Your task to perform on an android device: set default search engine in the chrome app Image 0: 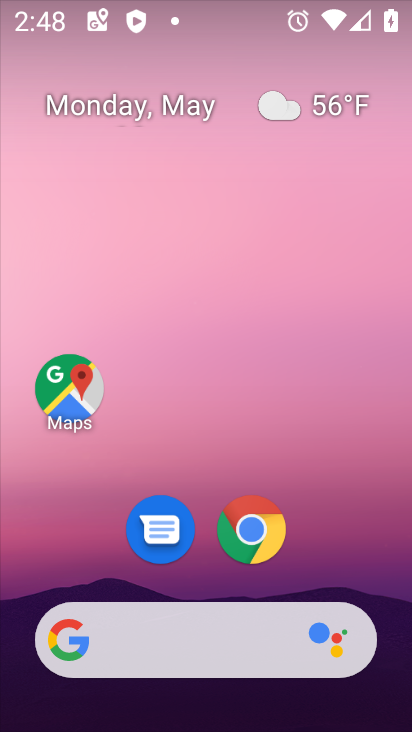
Step 0: click (245, 524)
Your task to perform on an android device: set default search engine in the chrome app Image 1: 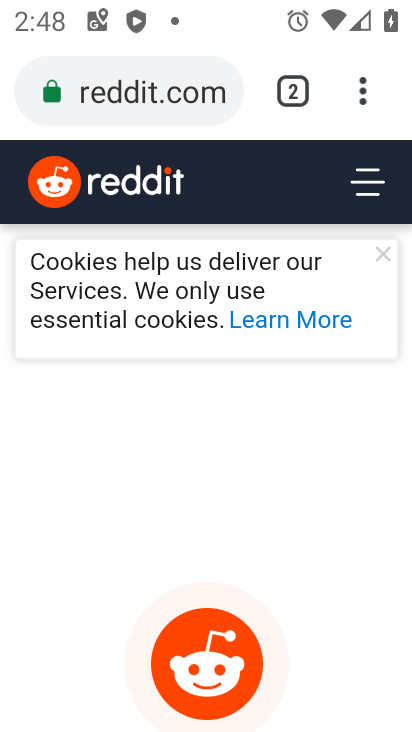
Step 1: click (356, 97)
Your task to perform on an android device: set default search engine in the chrome app Image 2: 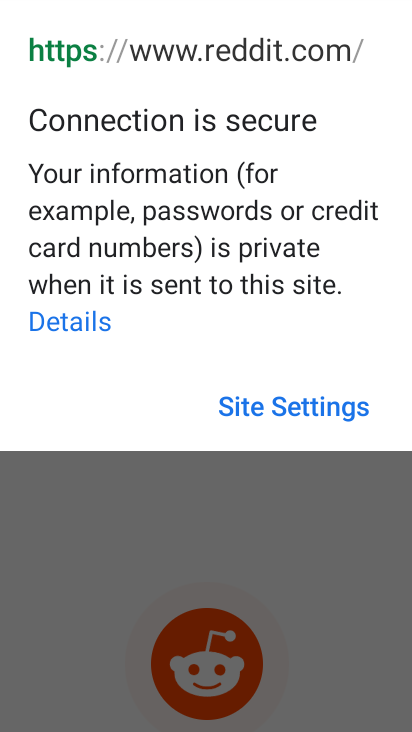
Step 2: click (335, 545)
Your task to perform on an android device: set default search engine in the chrome app Image 3: 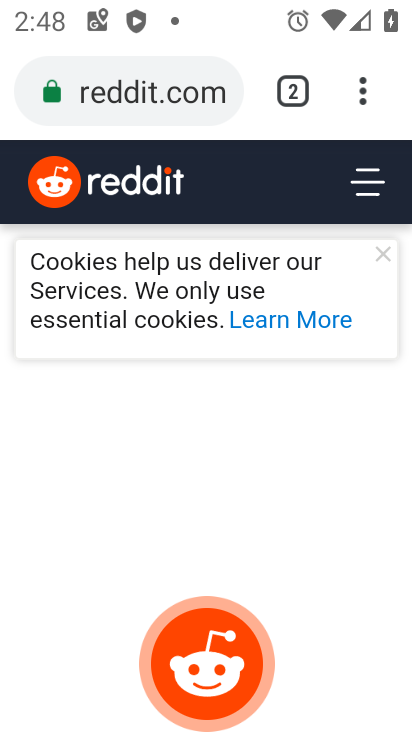
Step 3: click (363, 78)
Your task to perform on an android device: set default search engine in the chrome app Image 4: 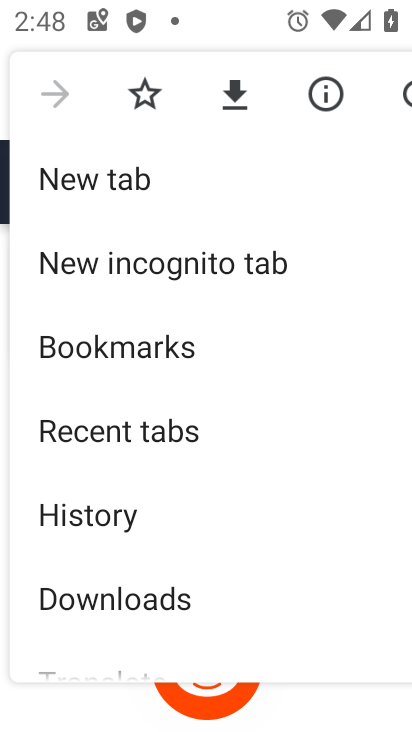
Step 4: drag from (184, 571) to (206, 341)
Your task to perform on an android device: set default search engine in the chrome app Image 5: 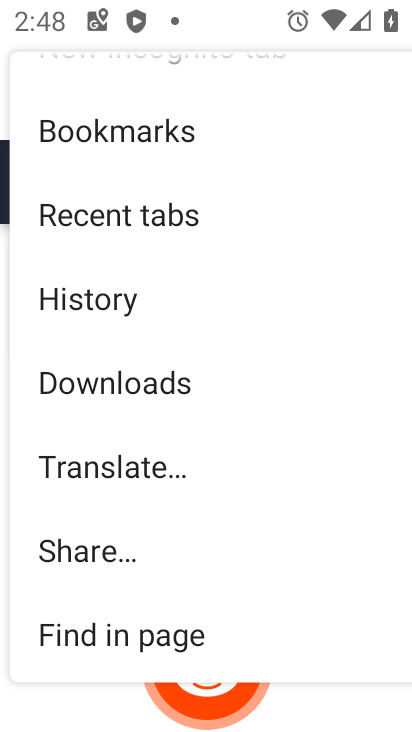
Step 5: drag from (177, 576) to (185, 314)
Your task to perform on an android device: set default search engine in the chrome app Image 6: 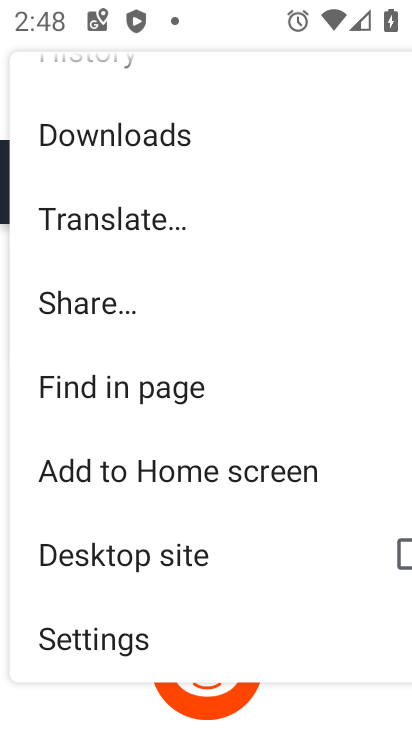
Step 6: click (155, 638)
Your task to perform on an android device: set default search engine in the chrome app Image 7: 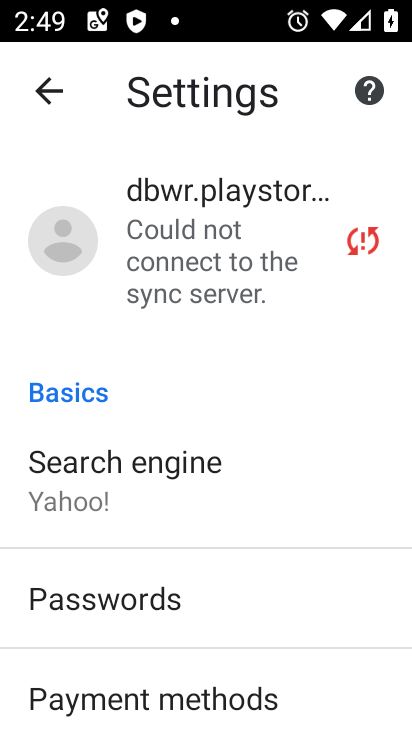
Step 7: click (85, 497)
Your task to perform on an android device: set default search engine in the chrome app Image 8: 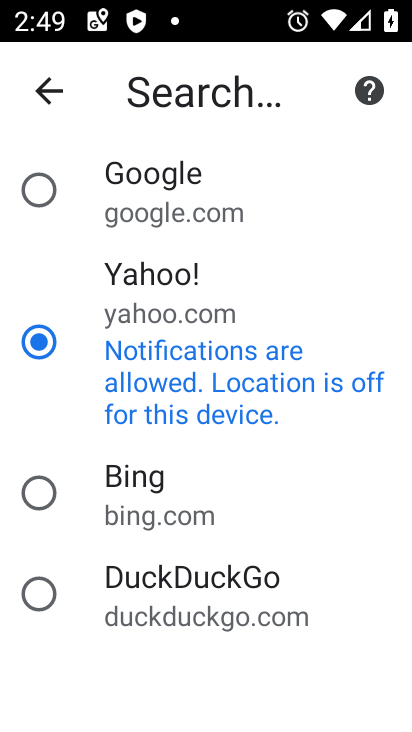
Step 8: click (170, 197)
Your task to perform on an android device: set default search engine in the chrome app Image 9: 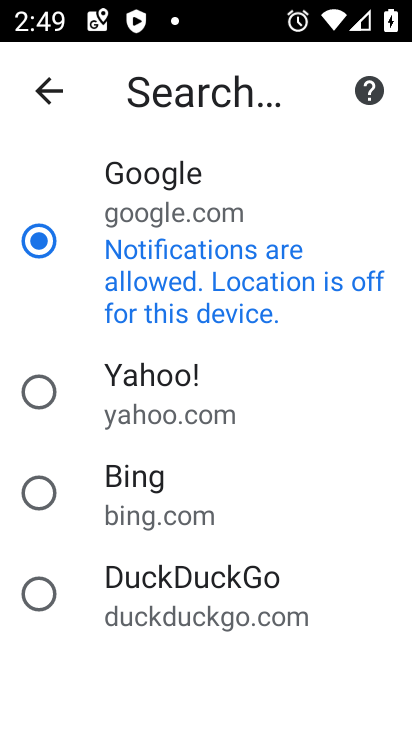
Step 9: task complete